Your task to perform on an android device: What is the news today? Image 0: 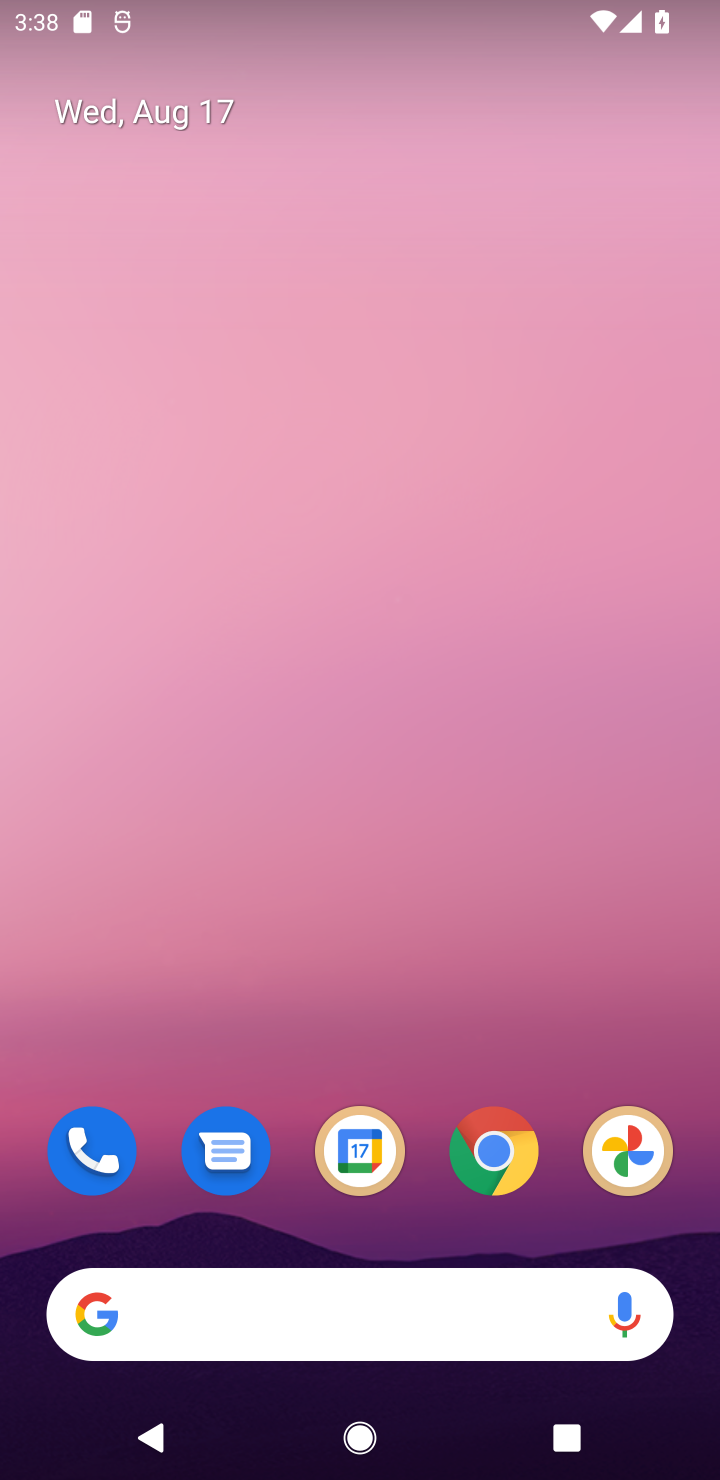
Step 0: click (469, 1315)
Your task to perform on an android device: What is the news today? Image 1: 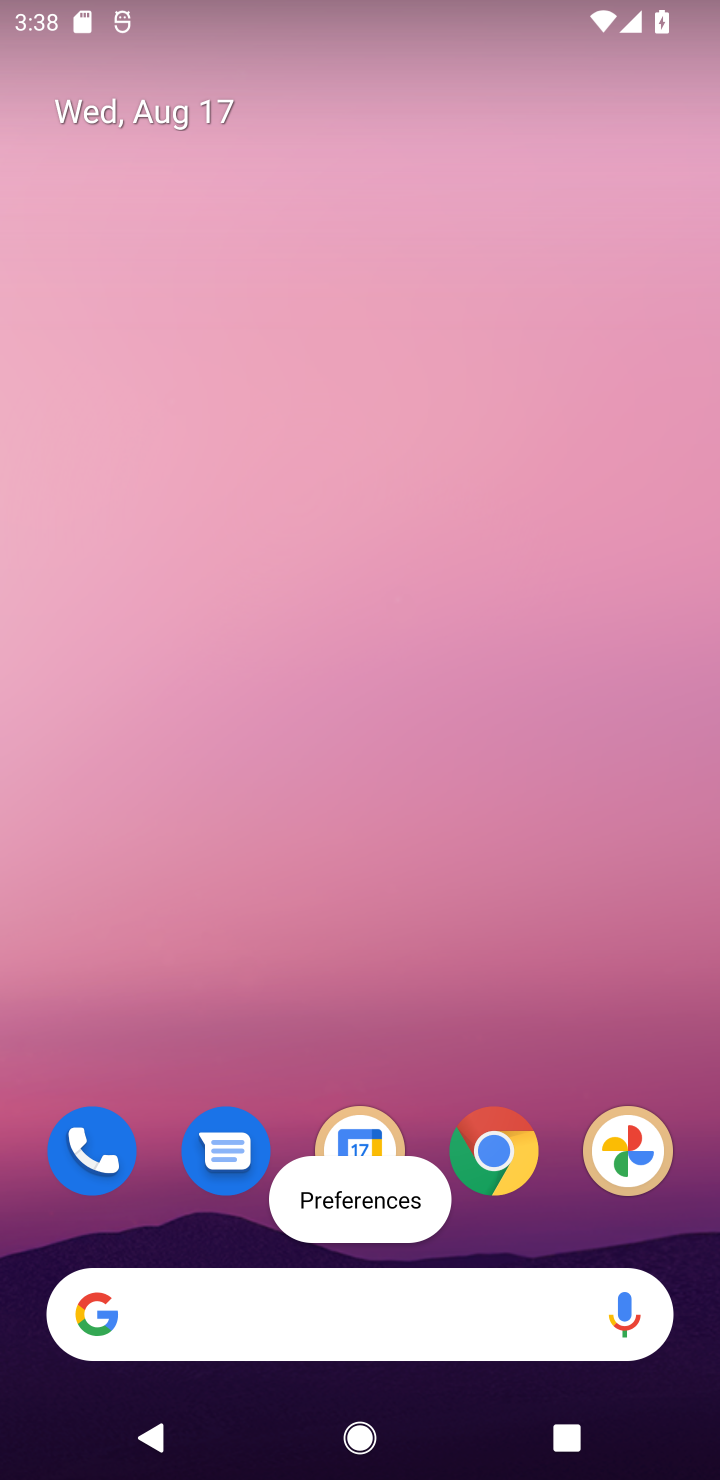
Step 1: click (469, 1315)
Your task to perform on an android device: What is the news today? Image 2: 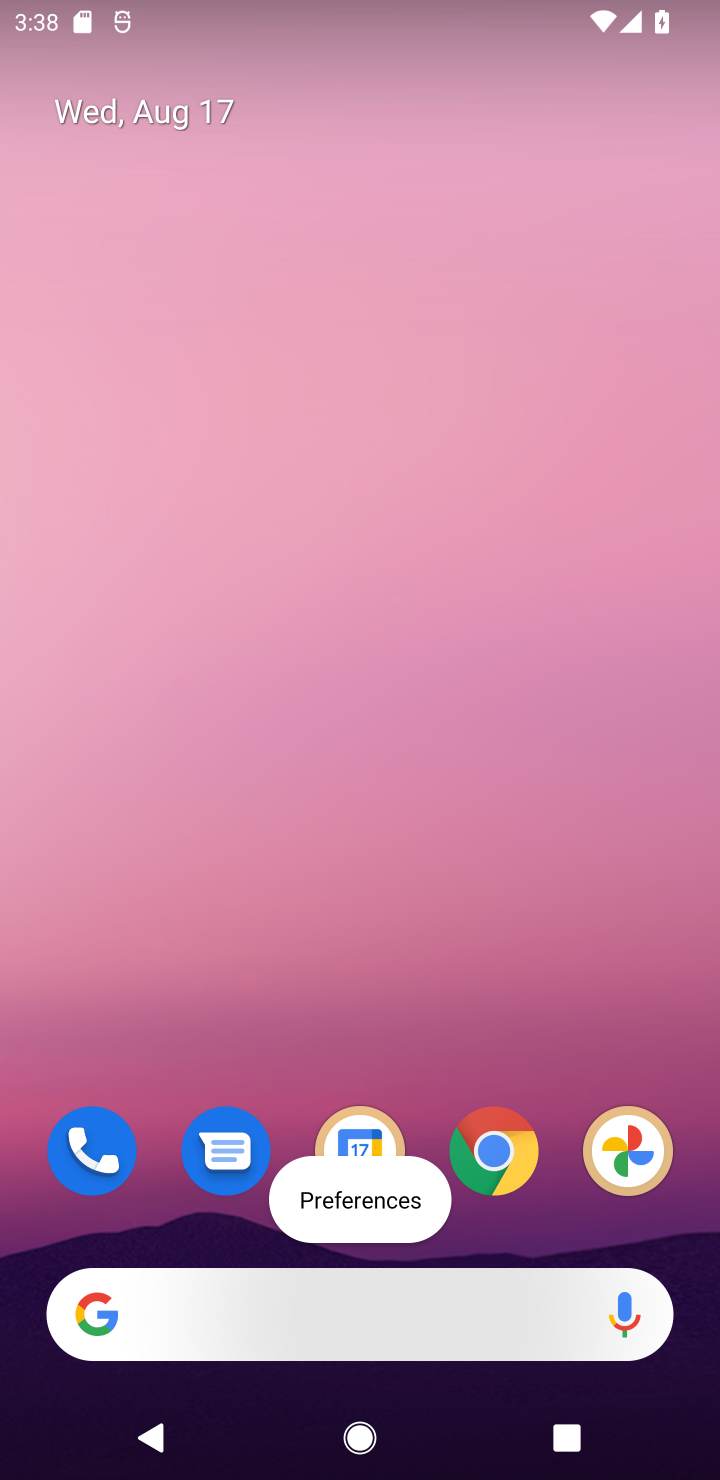
Step 2: click (161, 1315)
Your task to perform on an android device: What is the news today? Image 3: 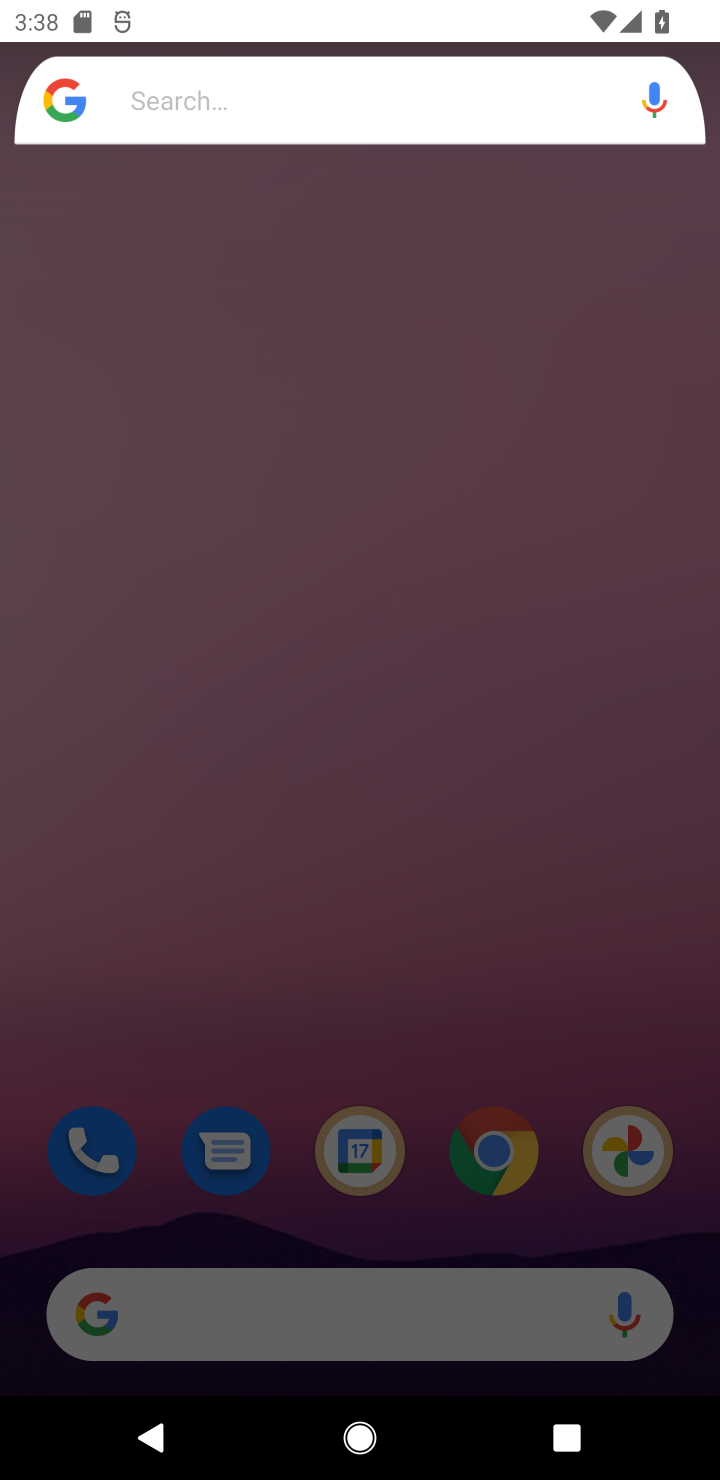
Step 3: click (161, 1315)
Your task to perform on an android device: What is the news today? Image 4: 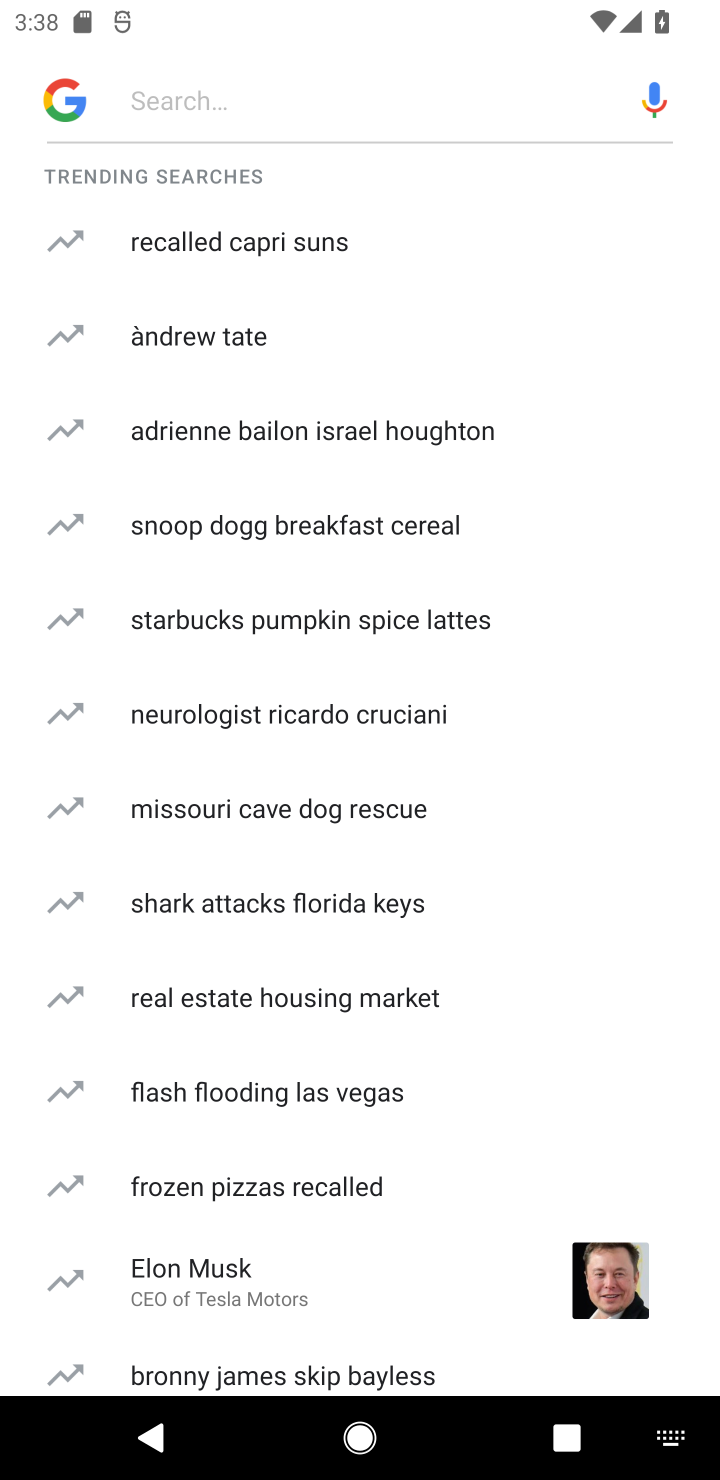
Step 4: click (235, 91)
Your task to perform on an android device: What is the news today? Image 5: 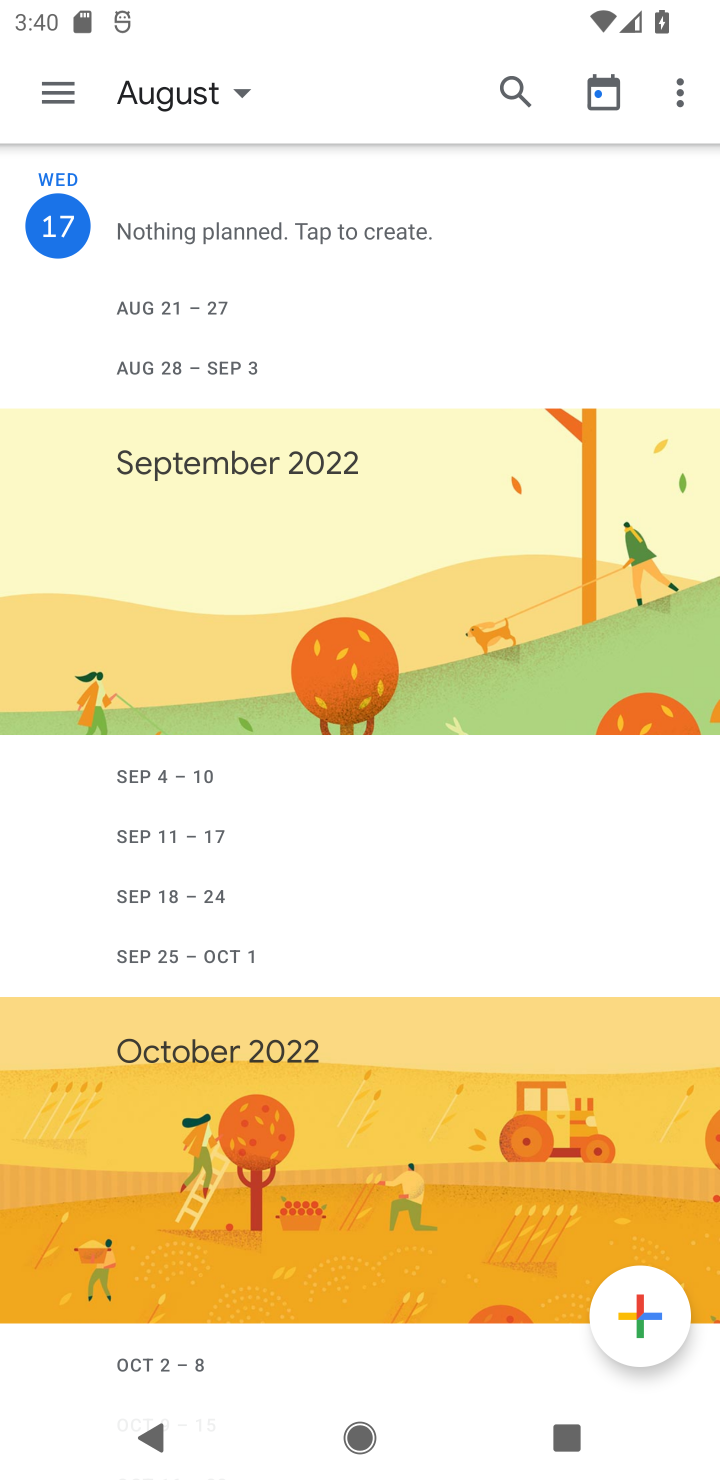
Step 5: task complete